Your task to perform on an android device: toggle sleep mode Image 0: 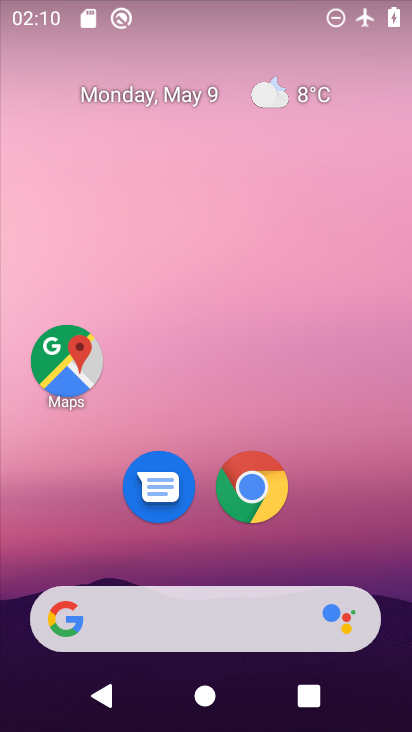
Step 0: drag from (342, 562) to (288, 51)
Your task to perform on an android device: toggle sleep mode Image 1: 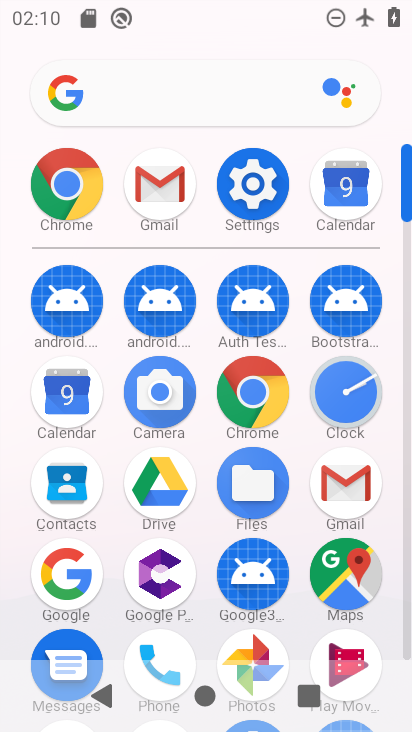
Step 1: click (253, 167)
Your task to perform on an android device: toggle sleep mode Image 2: 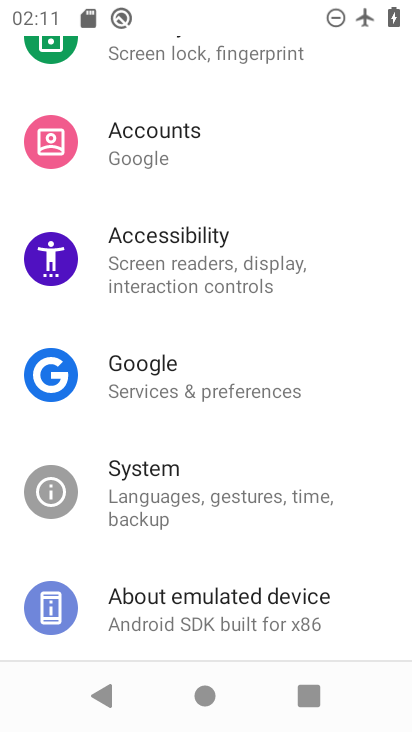
Step 2: drag from (152, 140) to (159, 424)
Your task to perform on an android device: toggle sleep mode Image 3: 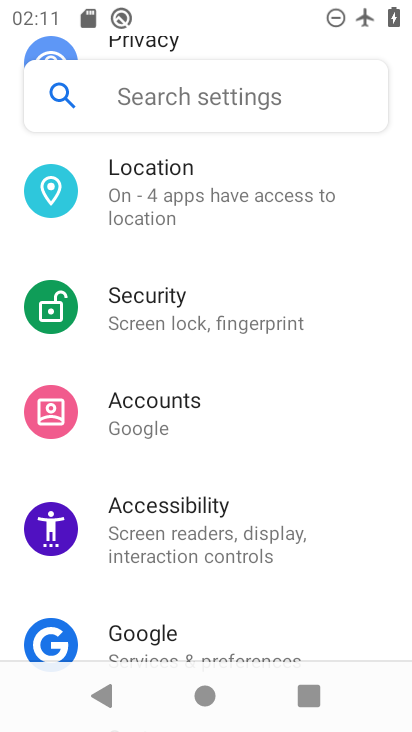
Step 3: drag from (182, 236) to (184, 522)
Your task to perform on an android device: toggle sleep mode Image 4: 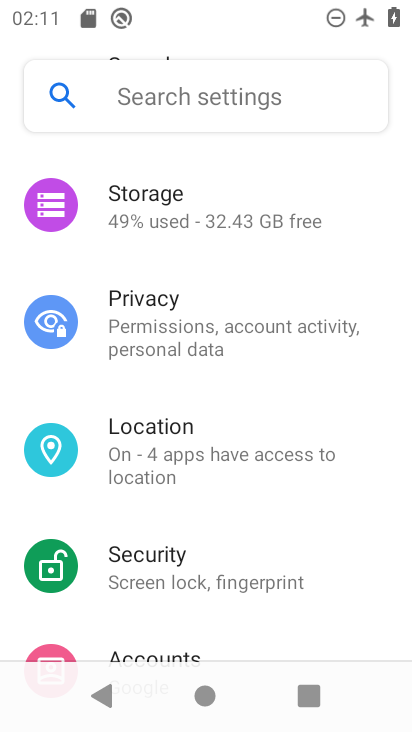
Step 4: drag from (213, 196) to (214, 370)
Your task to perform on an android device: toggle sleep mode Image 5: 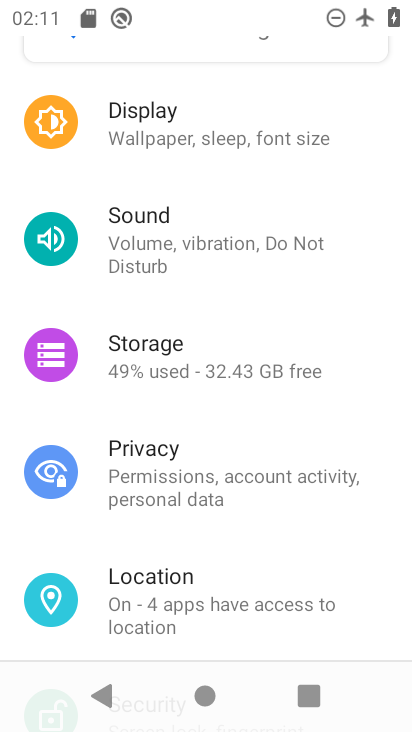
Step 5: click (129, 124)
Your task to perform on an android device: toggle sleep mode Image 6: 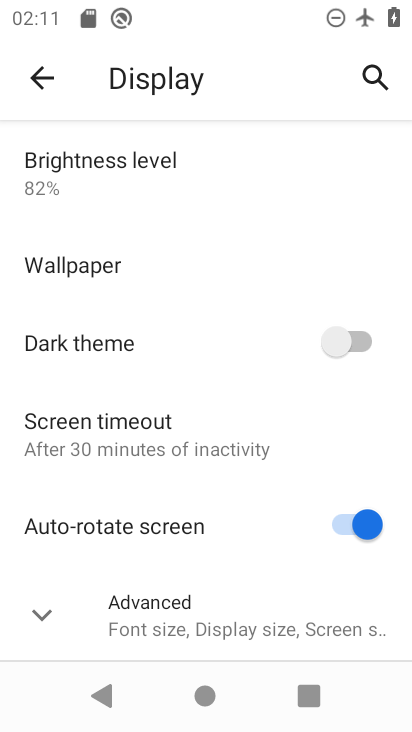
Step 6: drag from (172, 460) to (167, 339)
Your task to perform on an android device: toggle sleep mode Image 7: 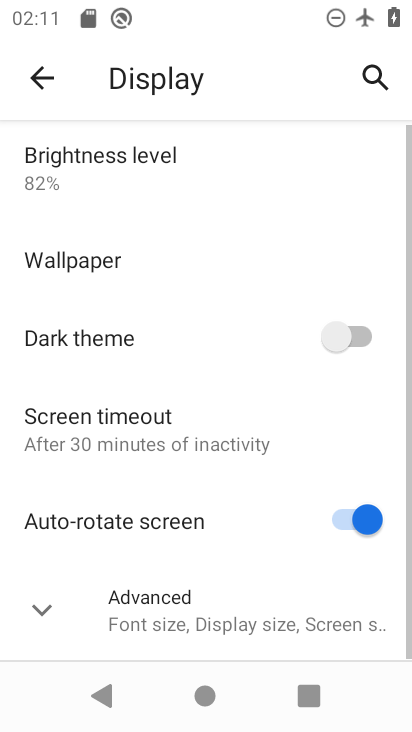
Step 7: click (175, 408)
Your task to perform on an android device: toggle sleep mode Image 8: 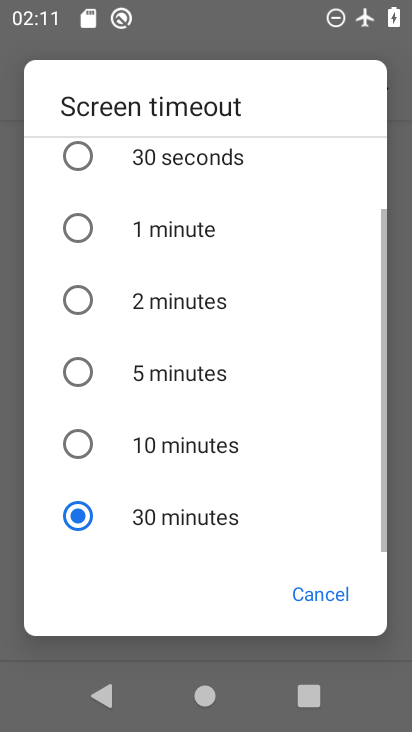
Step 8: task complete